Your task to perform on an android device: open a bookmark in the chrome app Image 0: 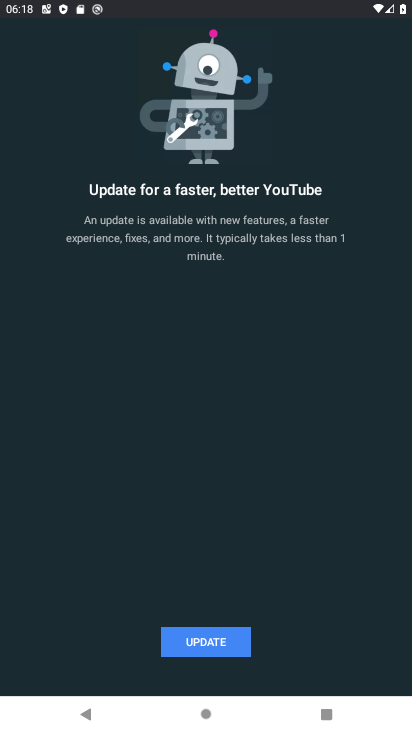
Step 0: press home button
Your task to perform on an android device: open a bookmark in the chrome app Image 1: 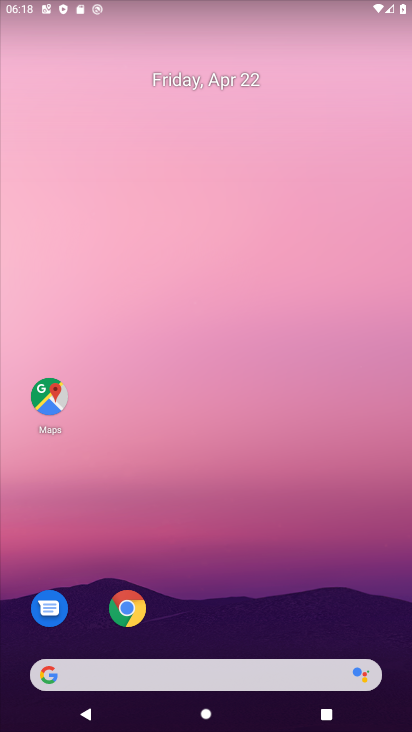
Step 1: click (118, 606)
Your task to perform on an android device: open a bookmark in the chrome app Image 2: 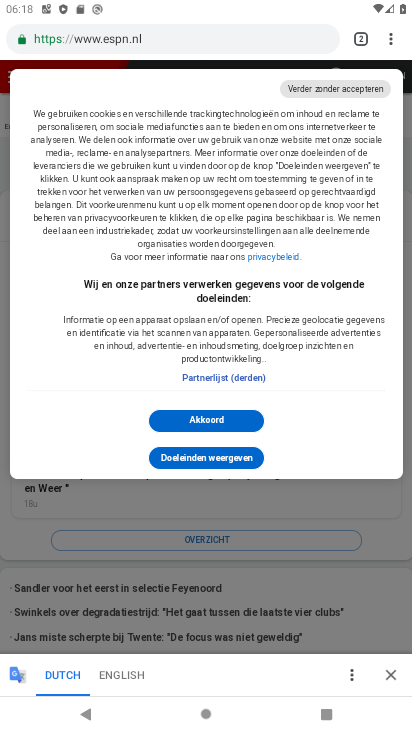
Step 2: click (391, 42)
Your task to perform on an android device: open a bookmark in the chrome app Image 3: 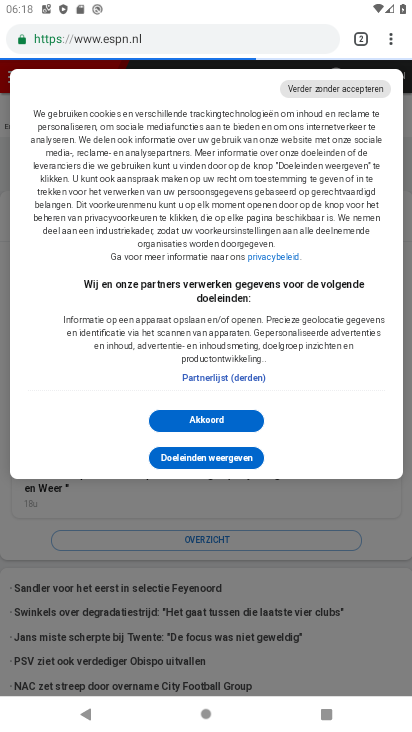
Step 3: click (386, 33)
Your task to perform on an android device: open a bookmark in the chrome app Image 4: 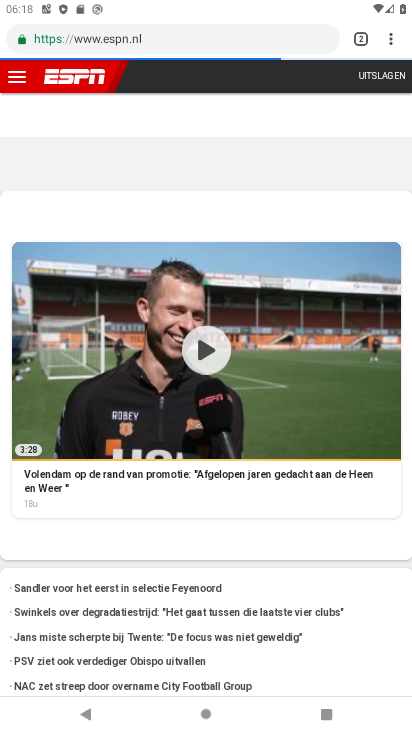
Step 4: click (391, 40)
Your task to perform on an android device: open a bookmark in the chrome app Image 5: 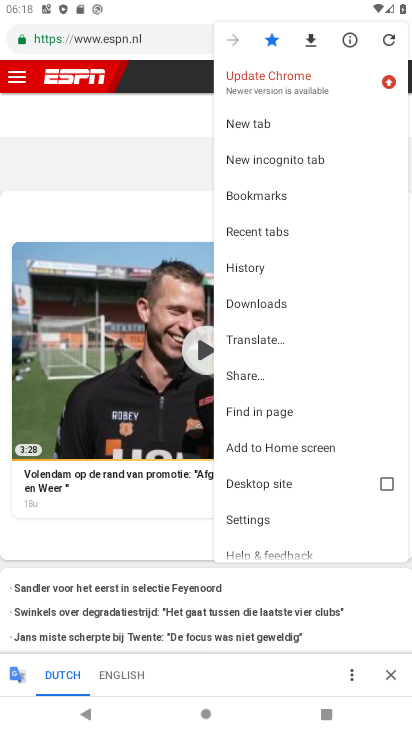
Step 5: click (258, 194)
Your task to perform on an android device: open a bookmark in the chrome app Image 6: 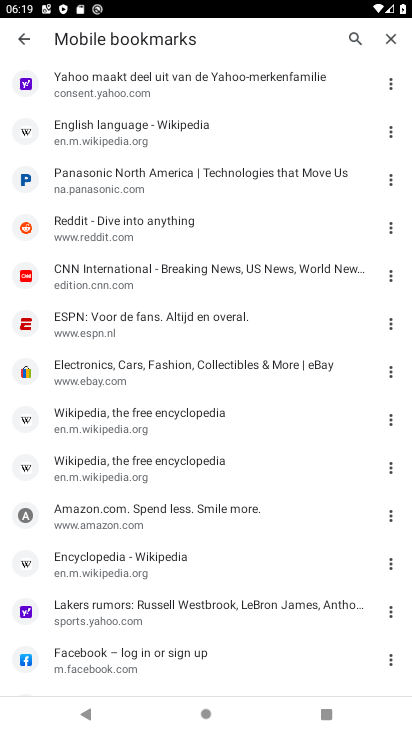
Step 6: click (87, 137)
Your task to perform on an android device: open a bookmark in the chrome app Image 7: 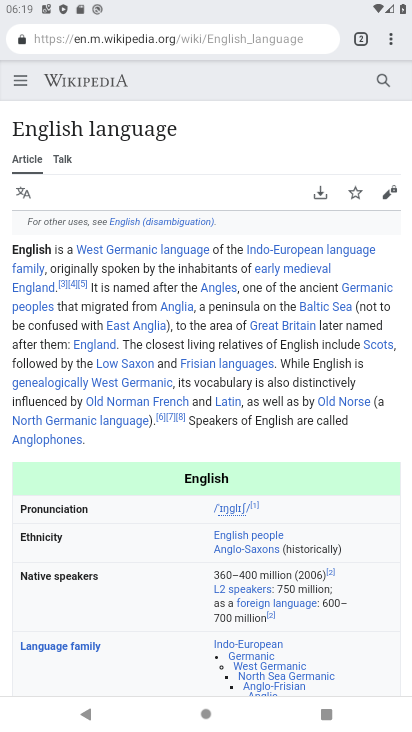
Step 7: task complete